Your task to perform on an android device: Go to Yahoo.com Image 0: 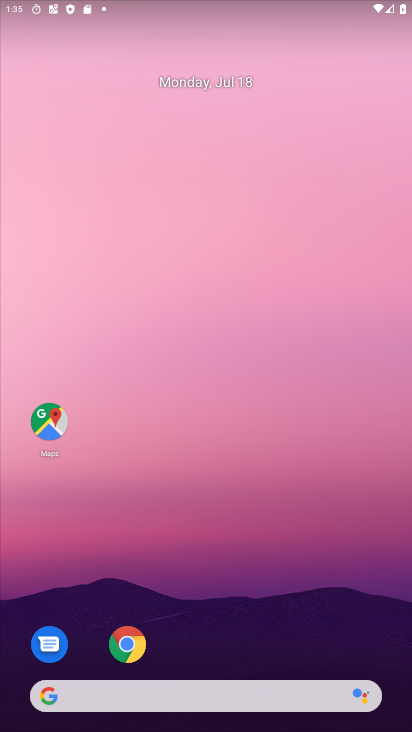
Step 0: click (122, 649)
Your task to perform on an android device: Go to Yahoo.com Image 1: 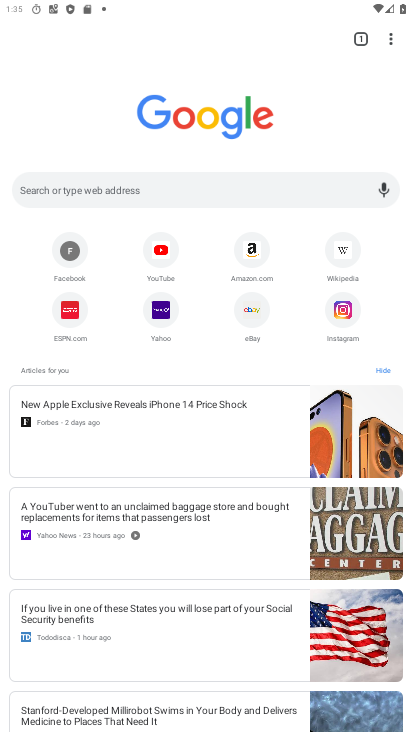
Step 1: click (165, 314)
Your task to perform on an android device: Go to Yahoo.com Image 2: 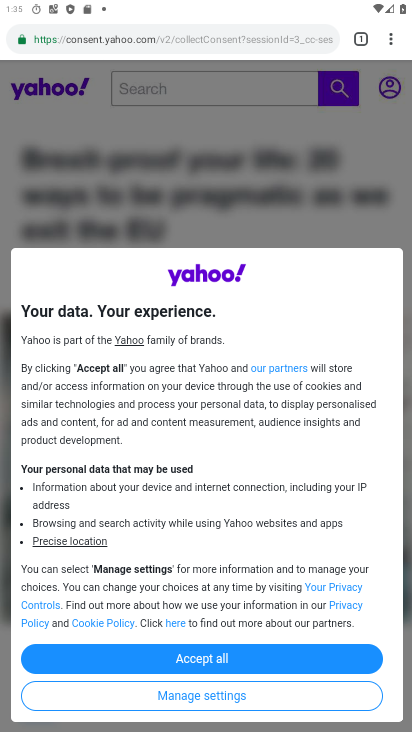
Step 2: task complete